Your task to perform on an android device: open app "Mercado Libre" (install if not already installed) Image 0: 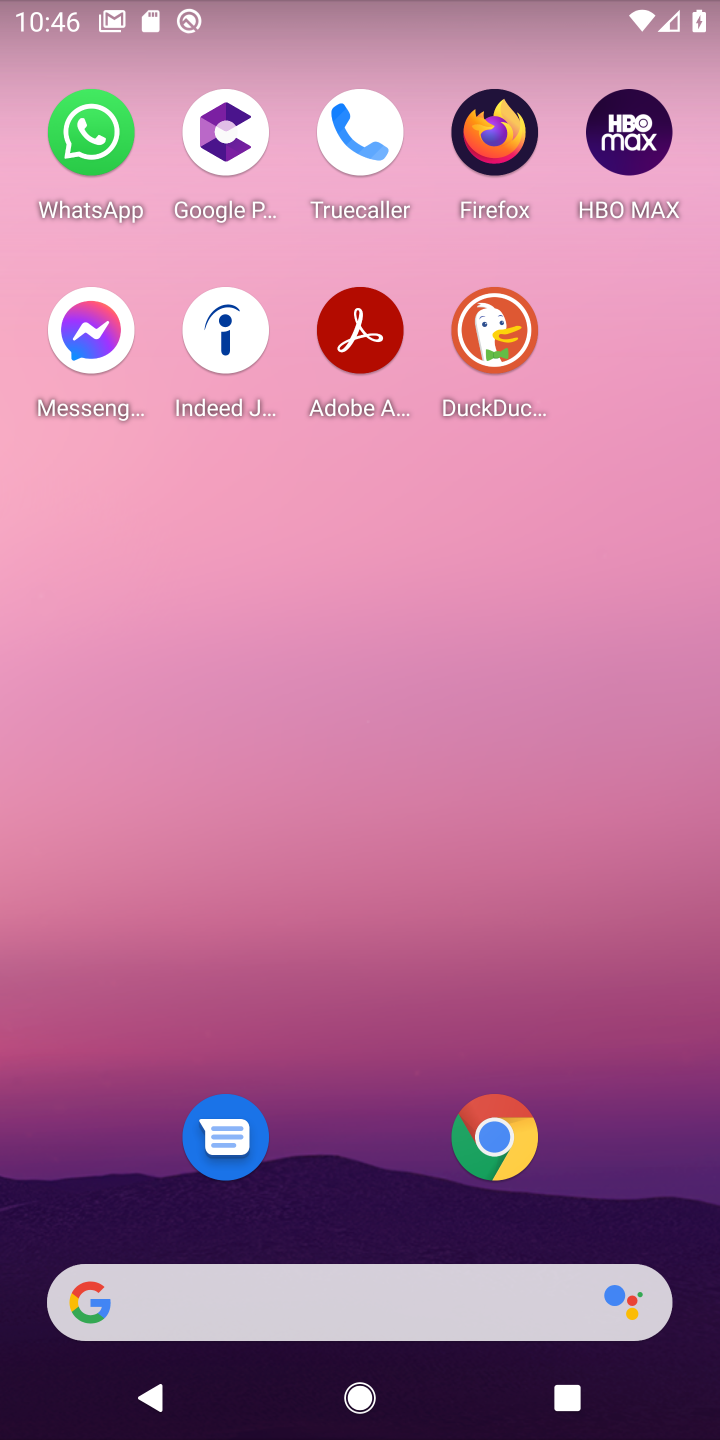
Step 0: drag from (311, 991) to (309, 638)
Your task to perform on an android device: open app "Mercado Libre" (install if not already installed) Image 1: 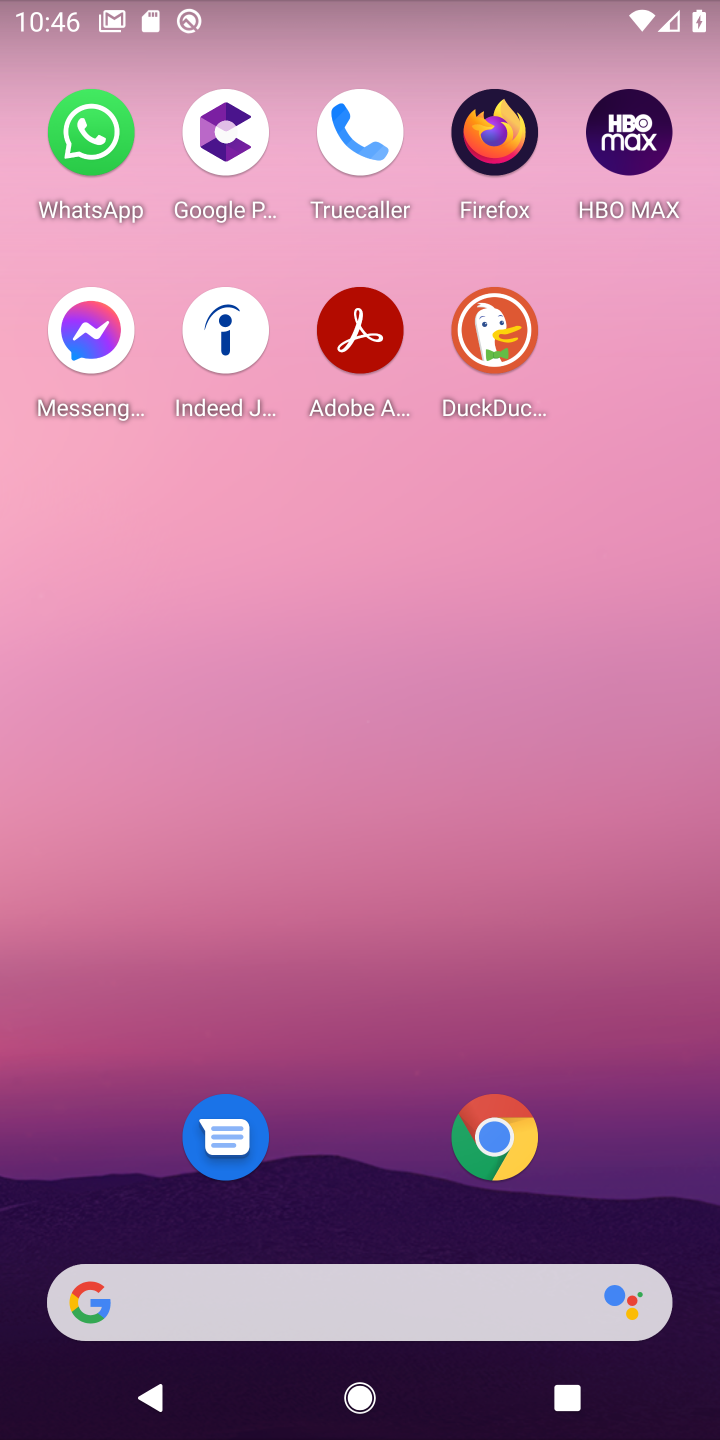
Step 1: drag from (376, 1105) to (383, 10)
Your task to perform on an android device: open app "Mercado Libre" (install if not already installed) Image 2: 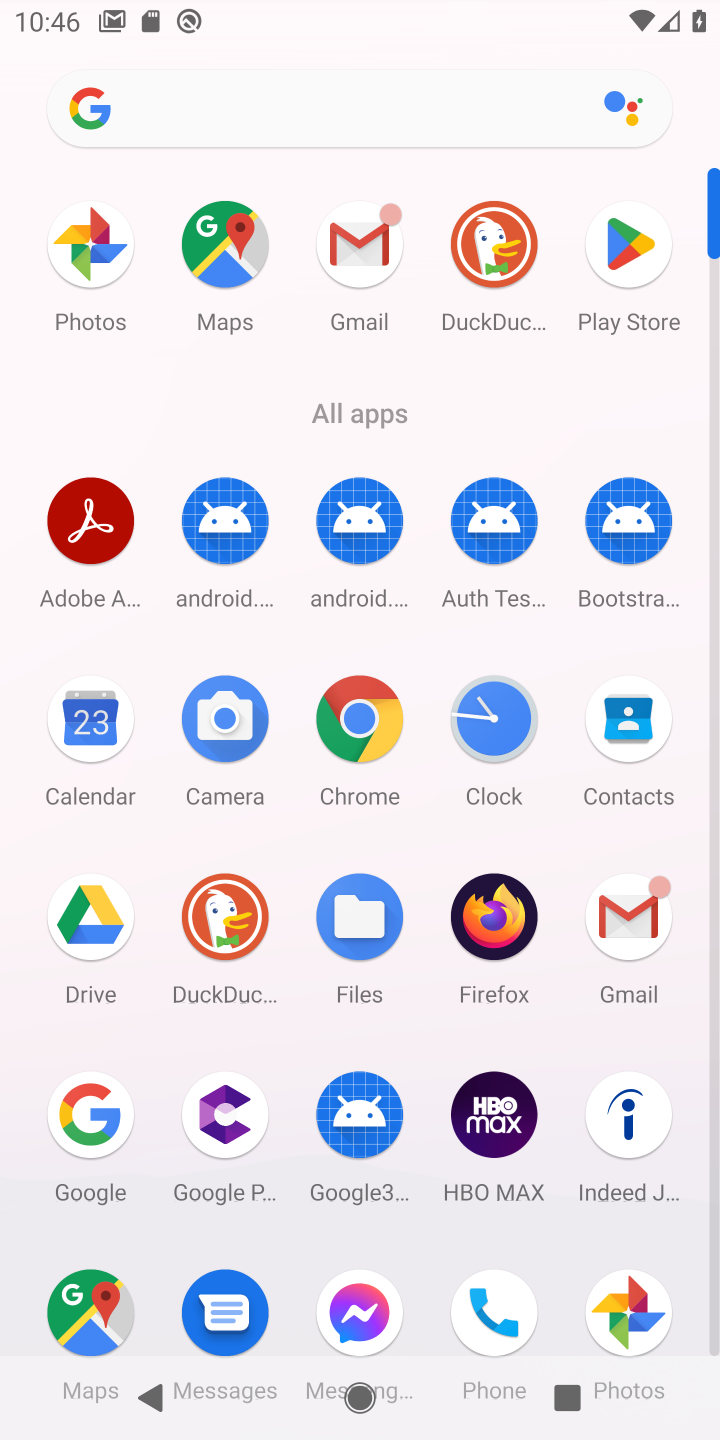
Step 2: click (636, 253)
Your task to perform on an android device: open app "Mercado Libre" (install if not already installed) Image 3: 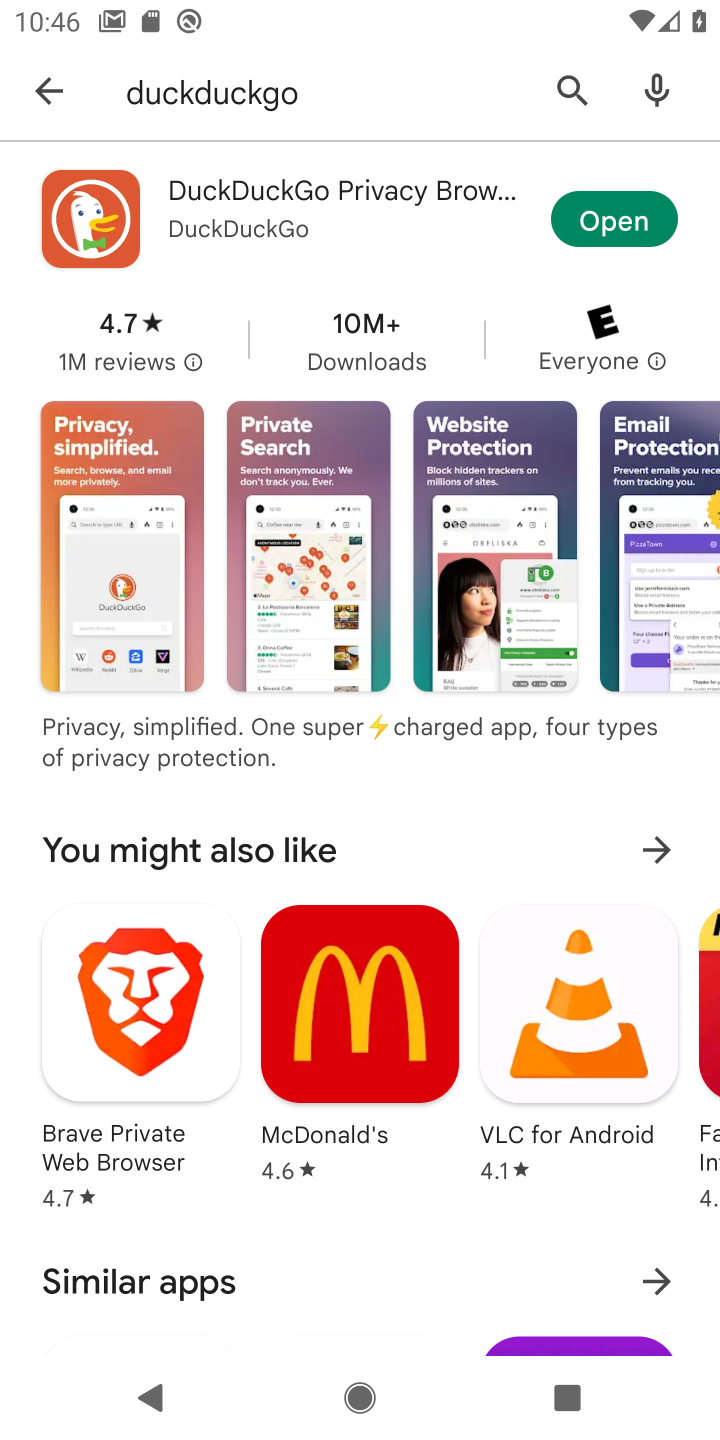
Step 3: click (349, 95)
Your task to perform on an android device: open app "Mercado Libre" (install if not already installed) Image 4: 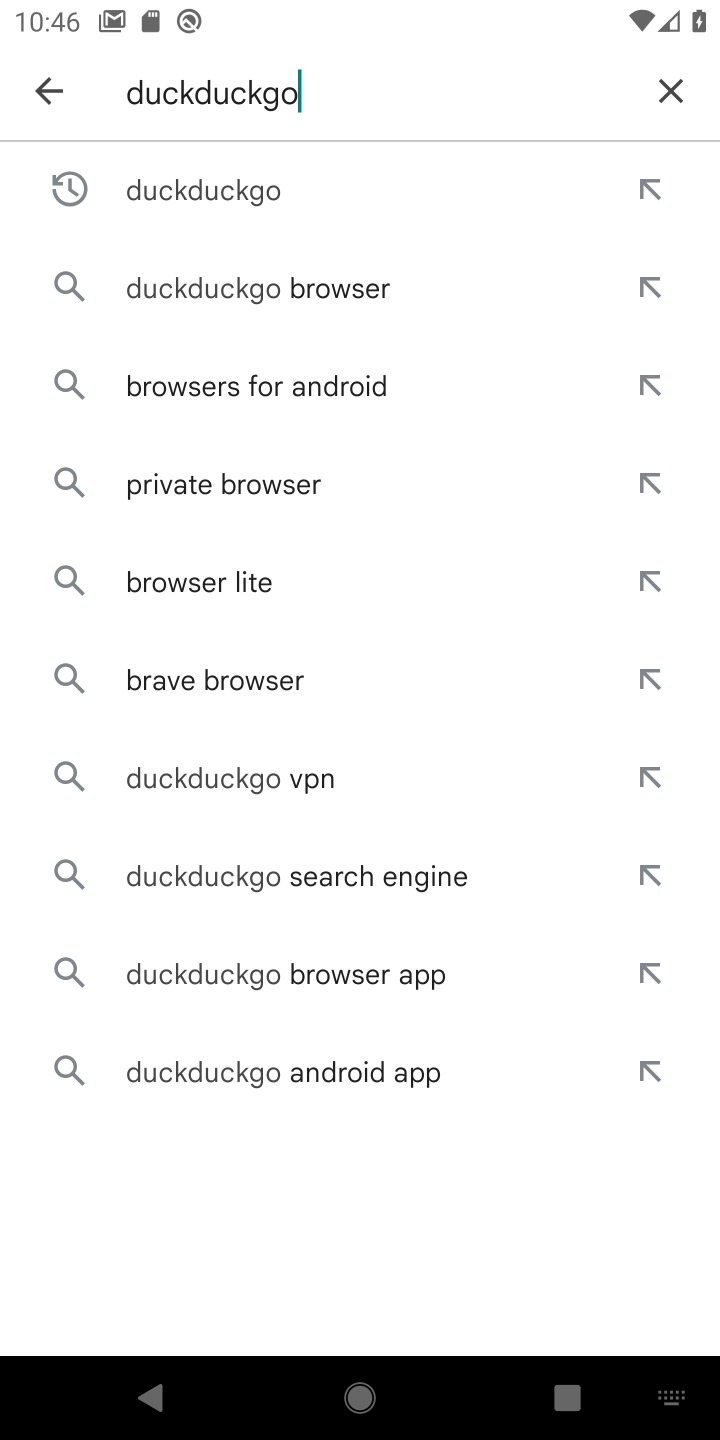
Step 4: click (676, 77)
Your task to perform on an android device: open app "Mercado Libre" (install if not already installed) Image 5: 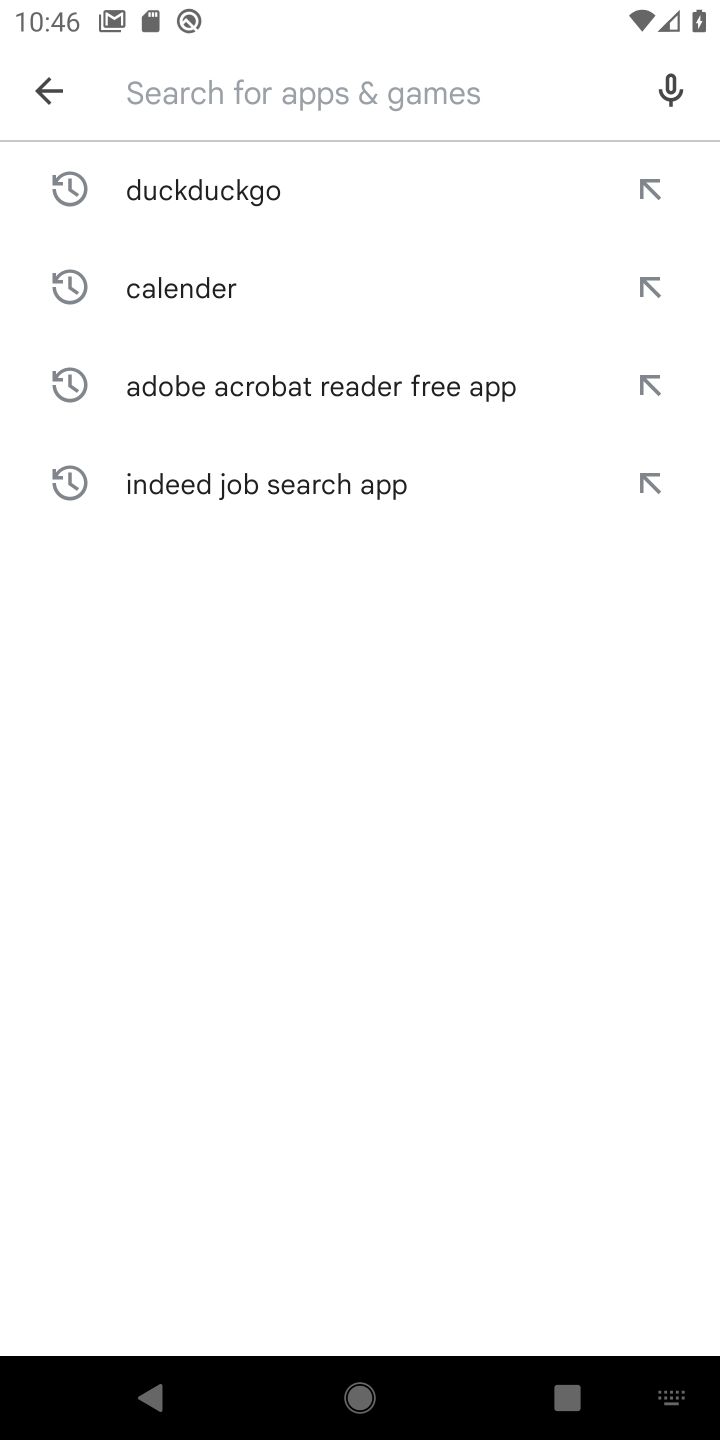
Step 5: type "mercado libre"
Your task to perform on an android device: open app "Mercado Libre" (install if not already installed) Image 6: 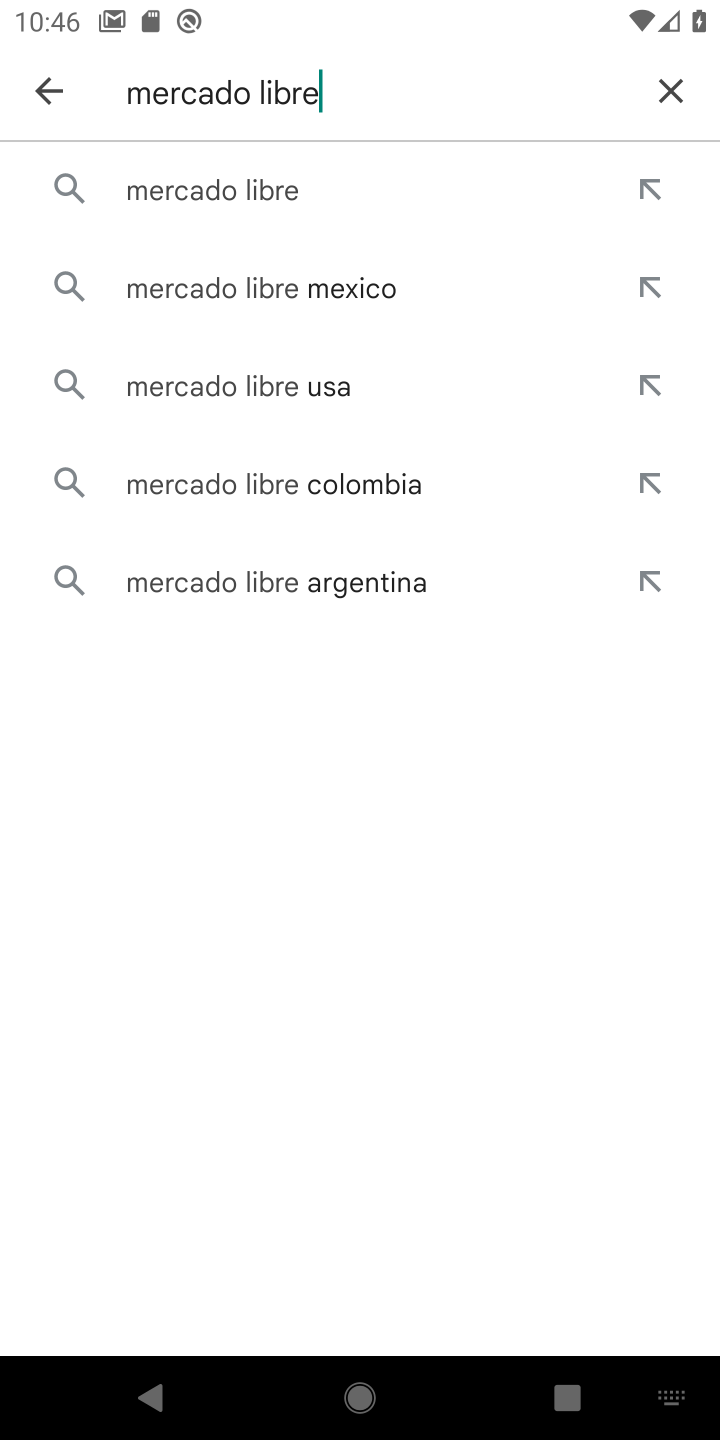
Step 6: click (237, 194)
Your task to perform on an android device: open app "Mercado Libre" (install if not already installed) Image 7: 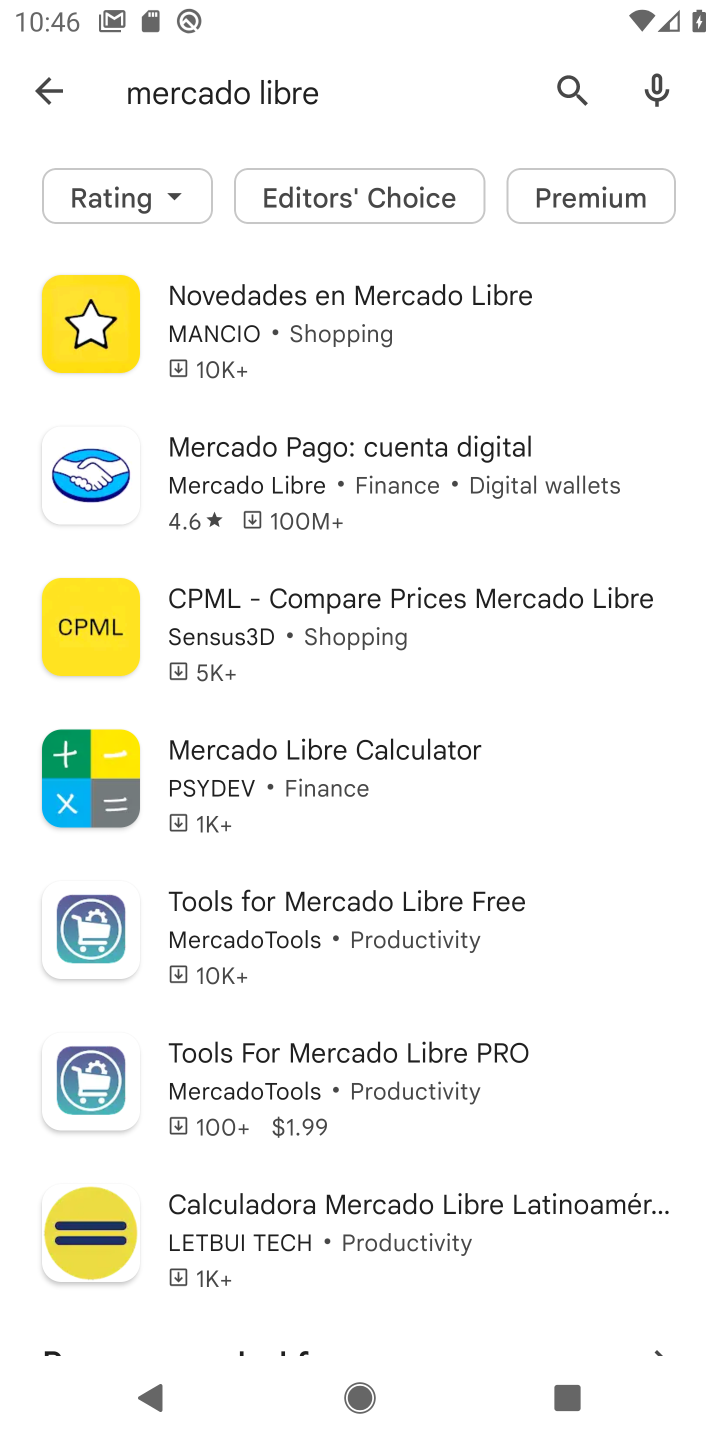
Step 7: task complete